Your task to perform on an android device: toggle sleep mode Image 0: 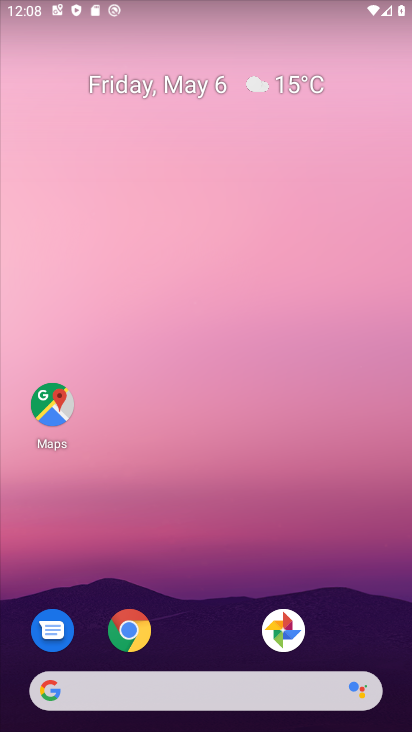
Step 0: drag from (346, 608) to (228, 10)
Your task to perform on an android device: toggle sleep mode Image 1: 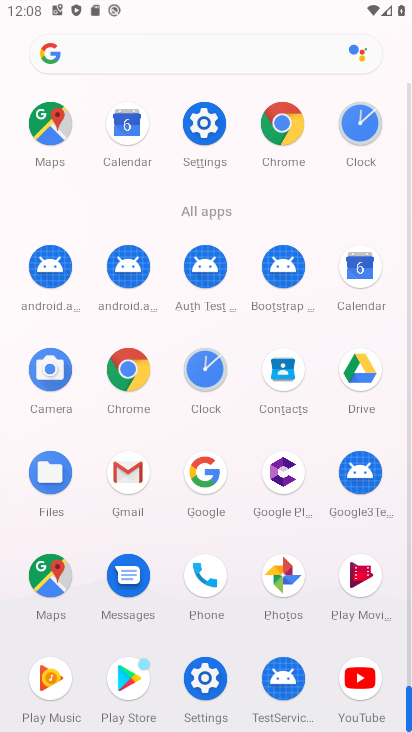
Step 1: click (204, 679)
Your task to perform on an android device: toggle sleep mode Image 2: 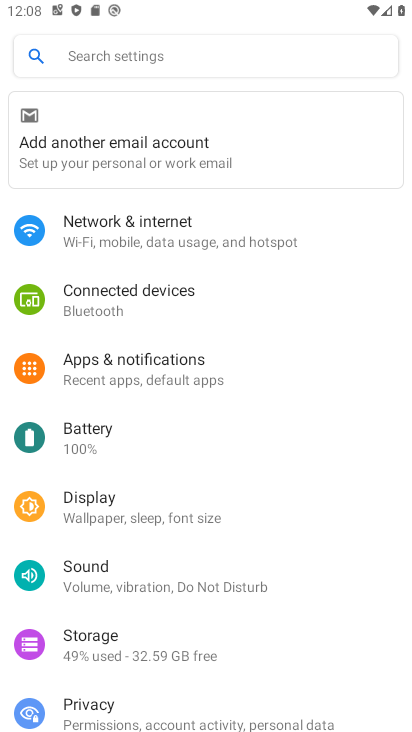
Step 2: task complete